Your task to perform on an android device: Open wifi settings Image 0: 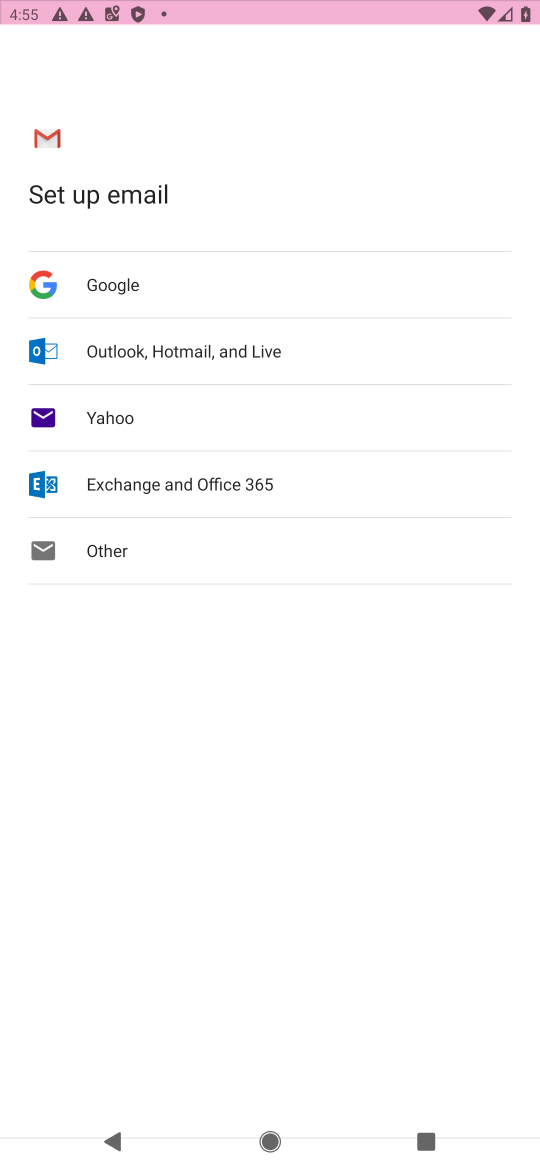
Step 0: press home button
Your task to perform on an android device: Open wifi settings Image 1: 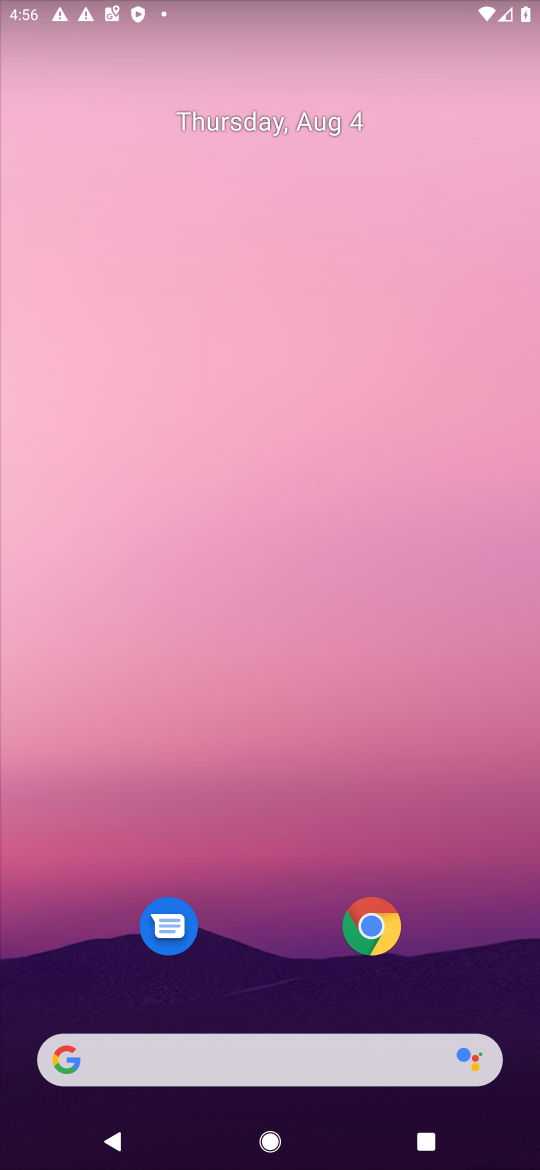
Step 1: drag from (269, 973) to (441, 265)
Your task to perform on an android device: Open wifi settings Image 2: 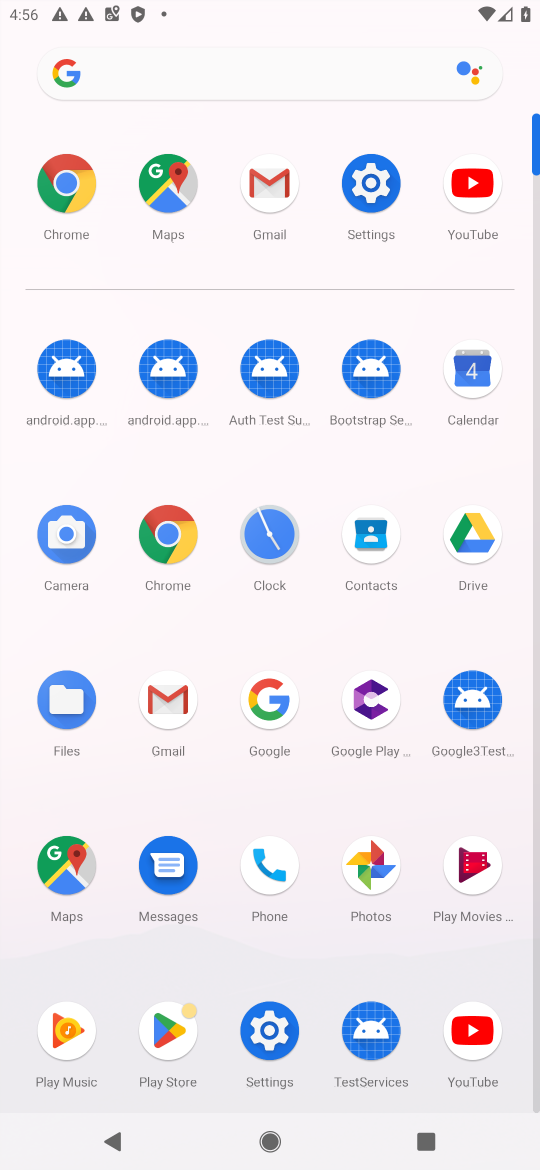
Step 2: click (387, 190)
Your task to perform on an android device: Open wifi settings Image 3: 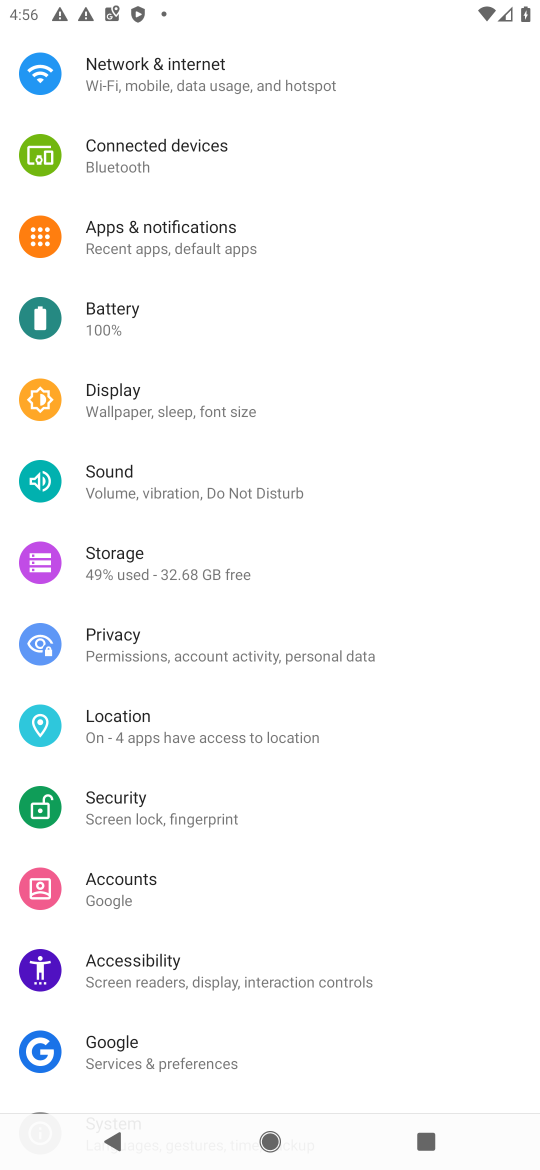
Step 3: click (149, 71)
Your task to perform on an android device: Open wifi settings Image 4: 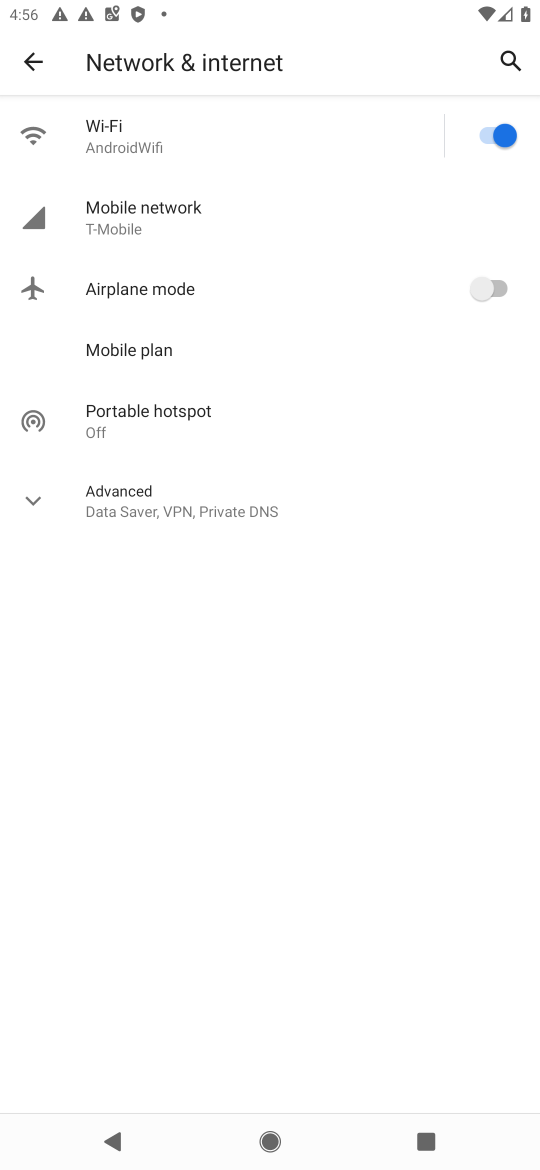
Step 4: click (103, 146)
Your task to perform on an android device: Open wifi settings Image 5: 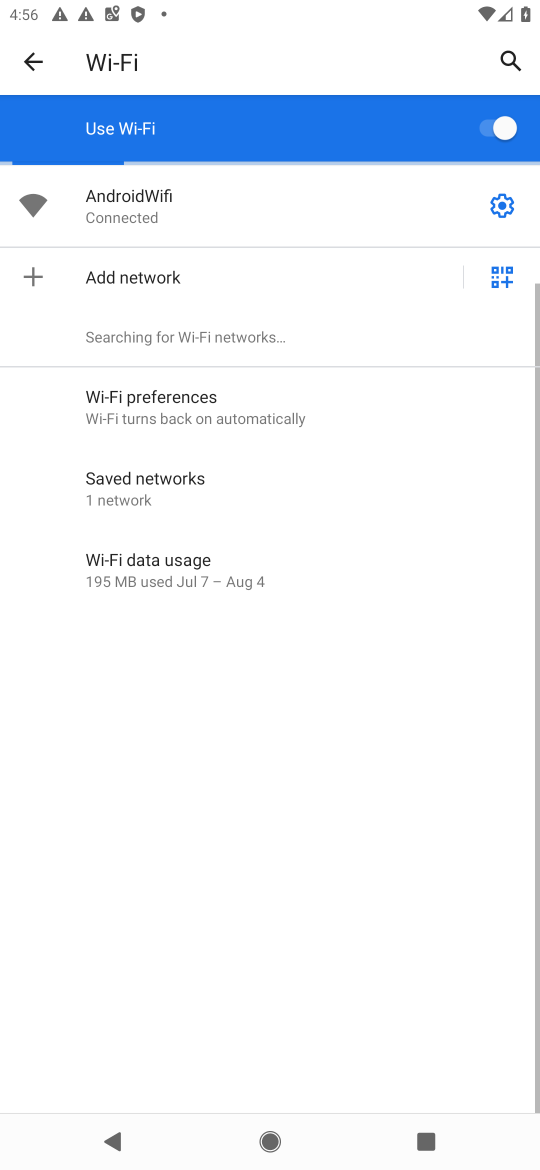
Step 5: click (125, 216)
Your task to perform on an android device: Open wifi settings Image 6: 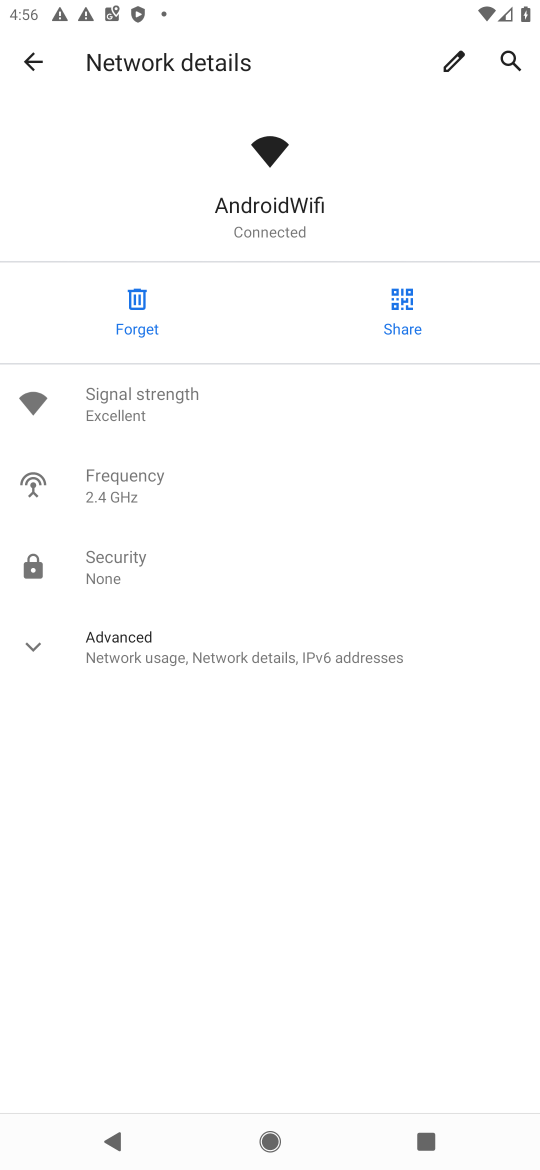
Step 6: task complete